Your task to perform on an android device: Do I have any events this weekend? Image 0: 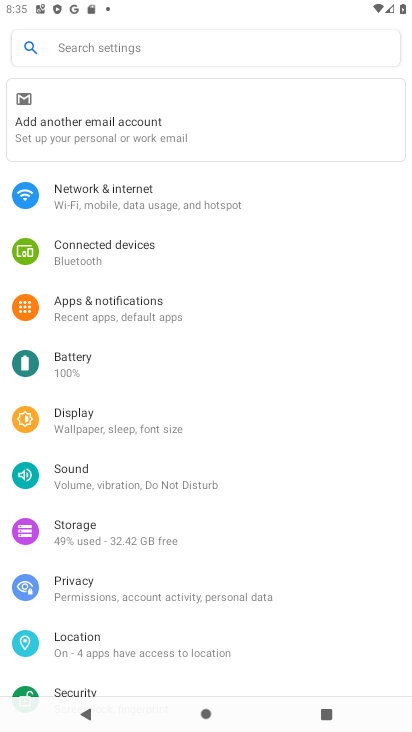
Step 0: press home button
Your task to perform on an android device: Do I have any events this weekend? Image 1: 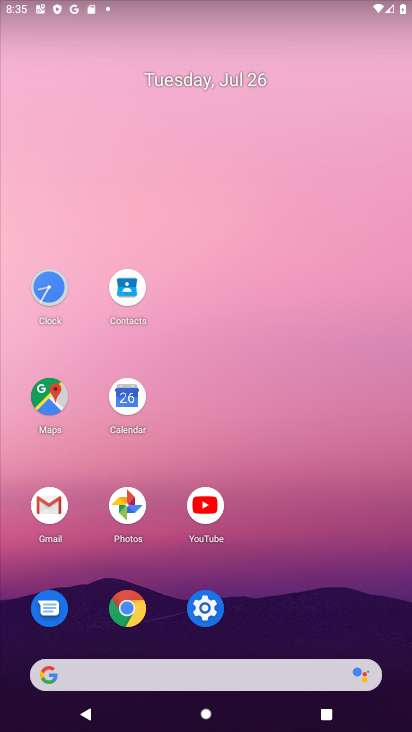
Step 1: click (131, 396)
Your task to perform on an android device: Do I have any events this weekend? Image 2: 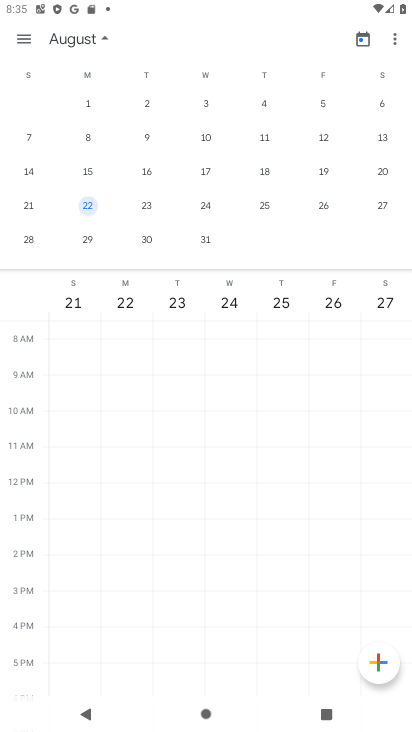
Step 2: drag from (33, 143) to (362, 127)
Your task to perform on an android device: Do I have any events this weekend? Image 3: 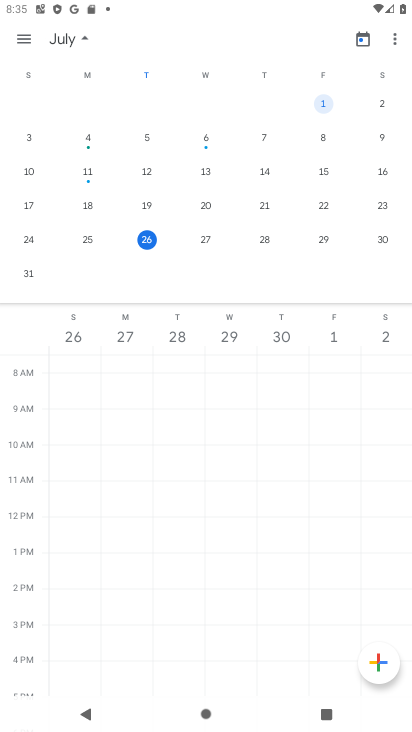
Step 3: click (141, 240)
Your task to perform on an android device: Do I have any events this weekend? Image 4: 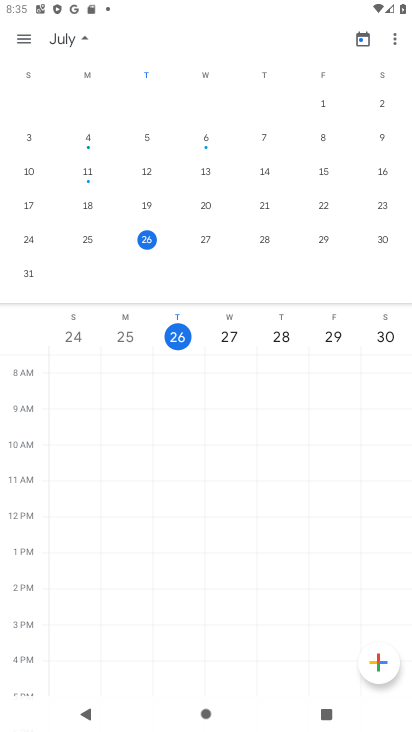
Step 4: task complete